Your task to perform on an android device: Go to display settings Image 0: 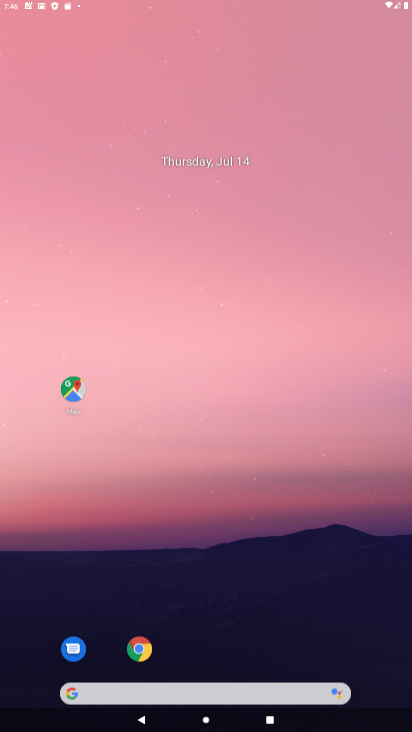
Step 0: press home button
Your task to perform on an android device: Go to display settings Image 1: 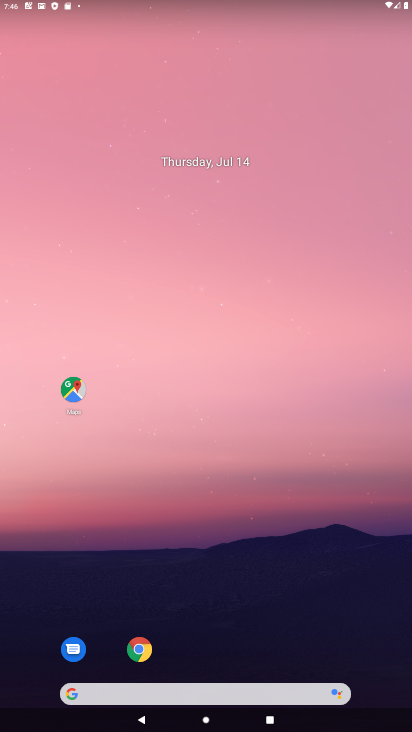
Step 1: drag from (210, 658) to (227, 47)
Your task to perform on an android device: Go to display settings Image 2: 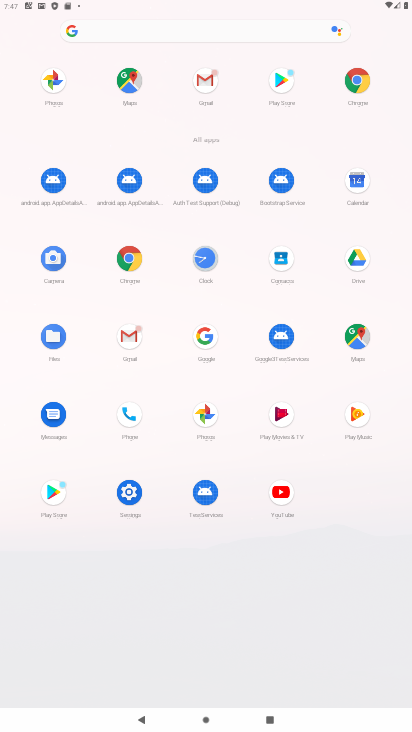
Step 2: click (127, 489)
Your task to perform on an android device: Go to display settings Image 3: 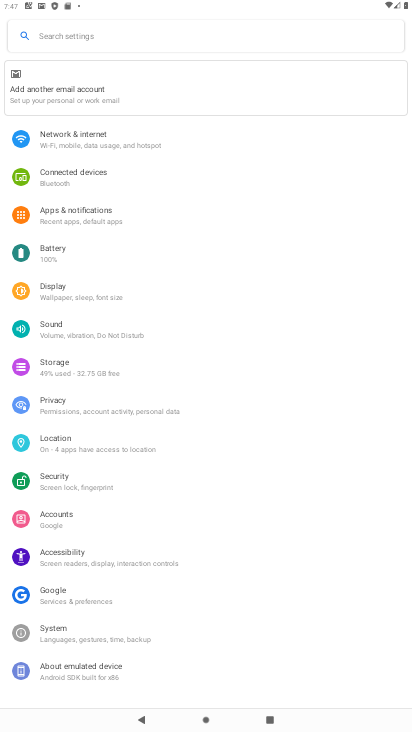
Step 3: click (76, 289)
Your task to perform on an android device: Go to display settings Image 4: 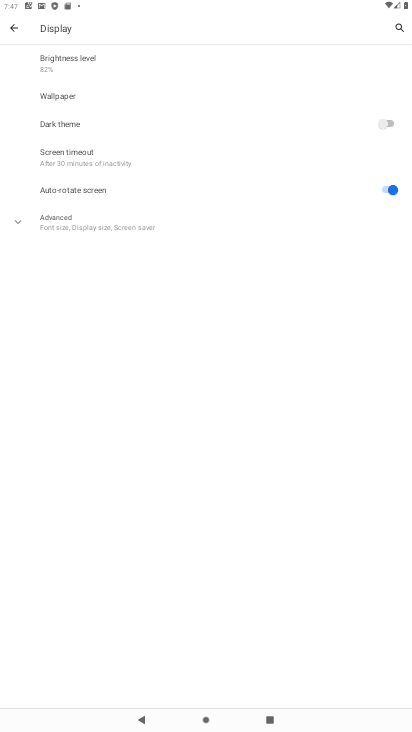
Step 4: click (24, 224)
Your task to perform on an android device: Go to display settings Image 5: 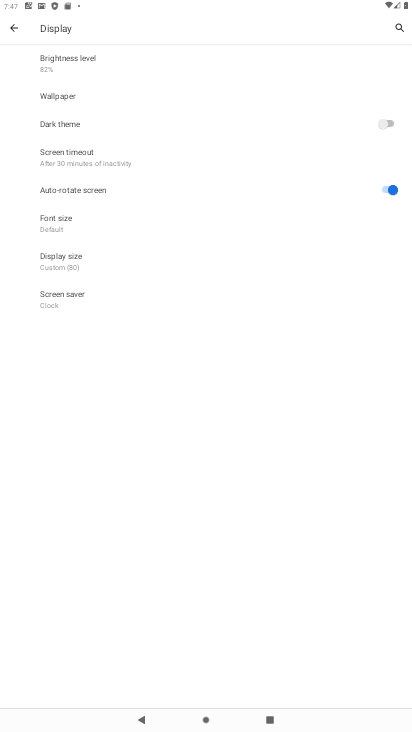
Step 5: task complete